Your task to perform on an android device: Open the web browser Image 0: 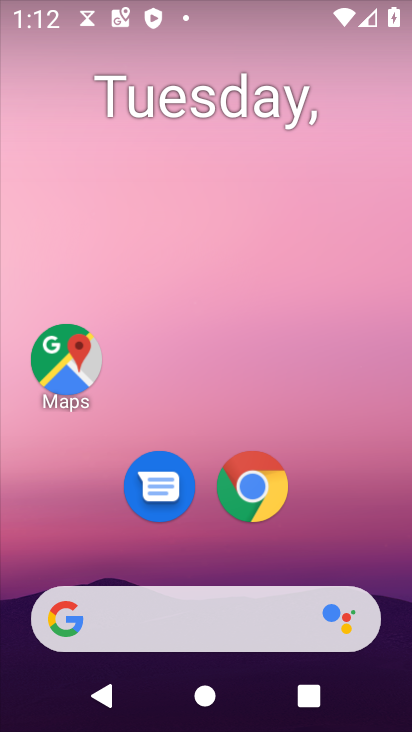
Step 0: drag from (366, 534) to (275, 132)
Your task to perform on an android device: Open the web browser Image 1: 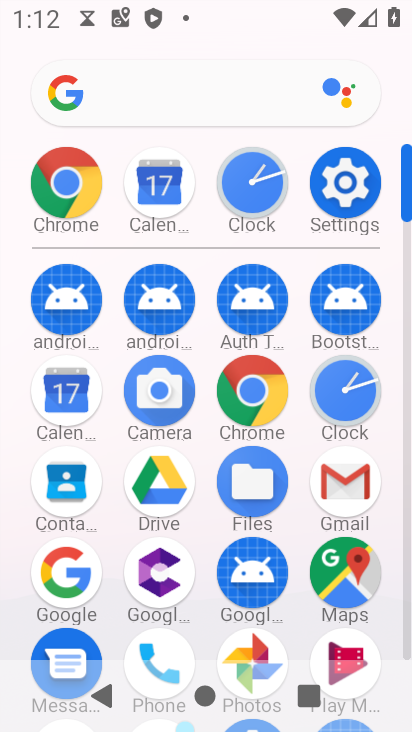
Step 1: click (59, 168)
Your task to perform on an android device: Open the web browser Image 2: 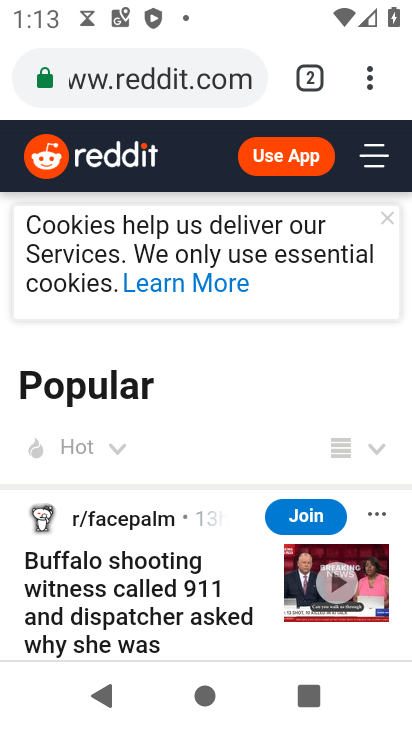
Step 2: task complete